Your task to perform on an android device: toggle pop-ups in chrome Image 0: 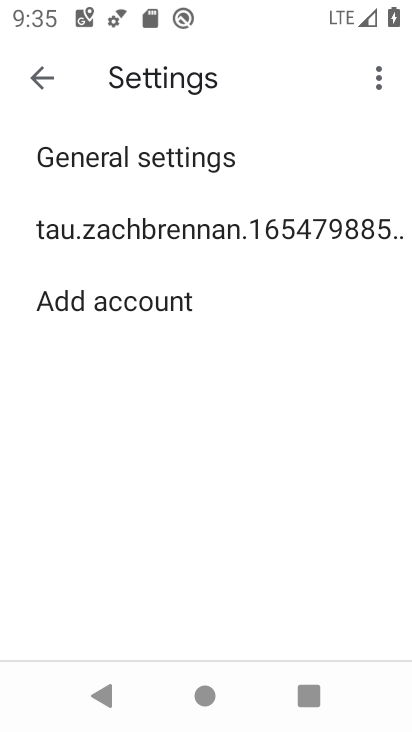
Step 0: press home button
Your task to perform on an android device: toggle pop-ups in chrome Image 1: 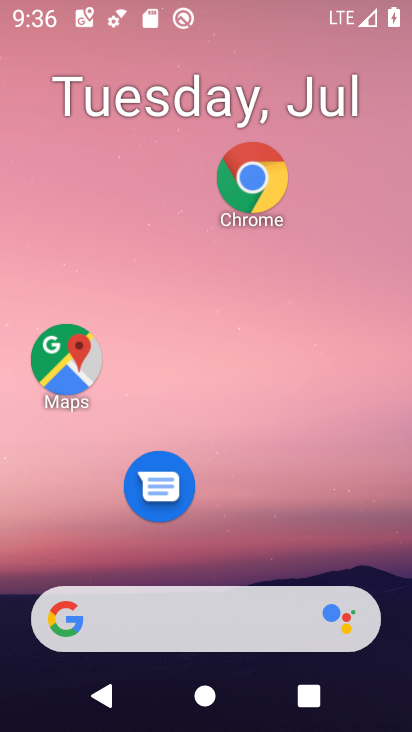
Step 1: drag from (228, 612) to (190, 59)
Your task to perform on an android device: toggle pop-ups in chrome Image 2: 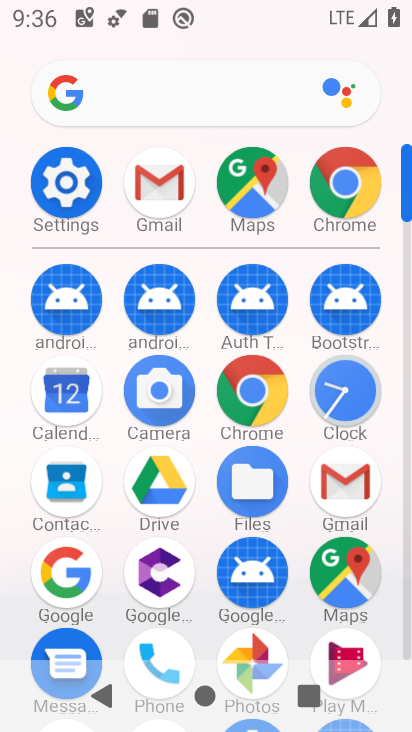
Step 2: click (355, 149)
Your task to perform on an android device: toggle pop-ups in chrome Image 3: 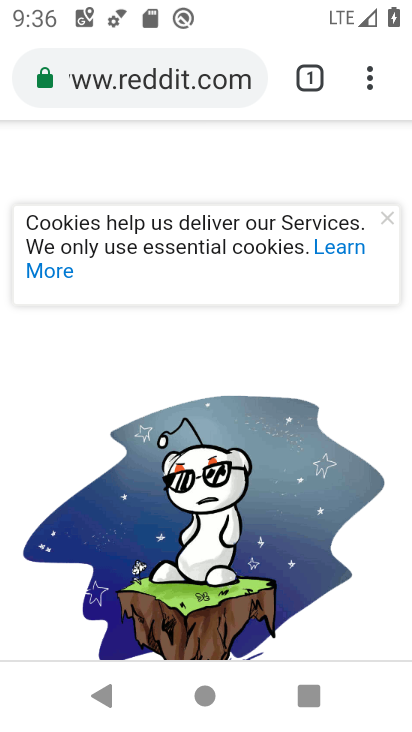
Step 3: click (363, 86)
Your task to perform on an android device: toggle pop-ups in chrome Image 4: 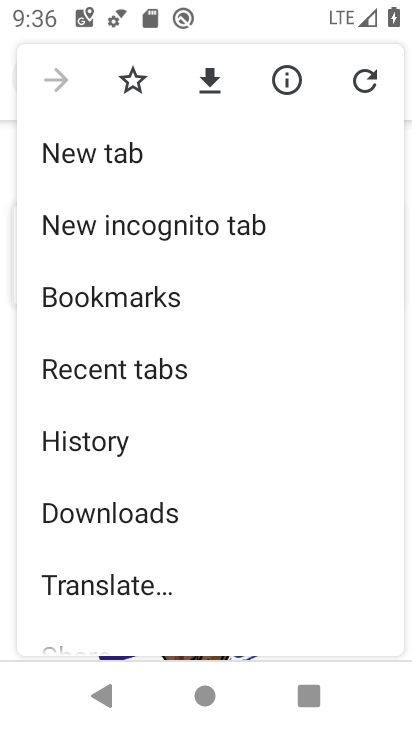
Step 4: drag from (108, 555) to (171, 117)
Your task to perform on an android device: toggle pop-ups in chrome Image 5: 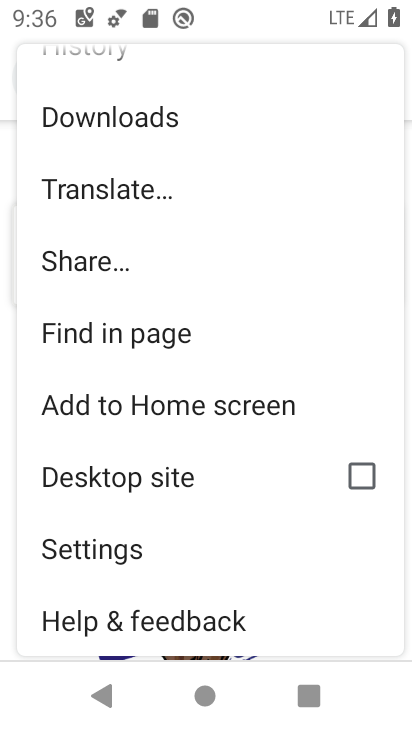
Step 5: click (75, 547)
Your task to perform on an android device: toggle pop-ups in chrome Image 6: 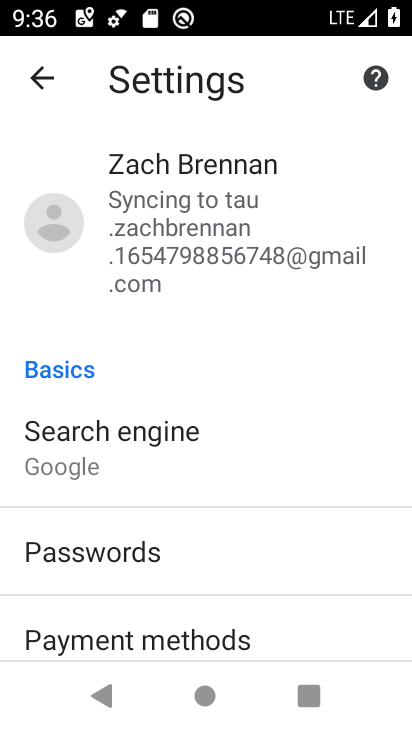
Step 6: drag from (239, 555) to (237, 27)
Your task to perform on an android device: toggle pop-ups in chrome Image 7: 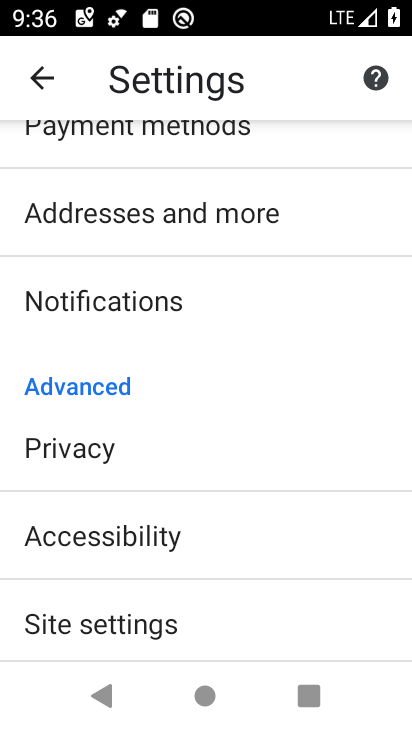
Step 7: drag from (113, 597) to (212, 179)
Your task to perform on an android device: toggle pop-ups in chrome Image 8: 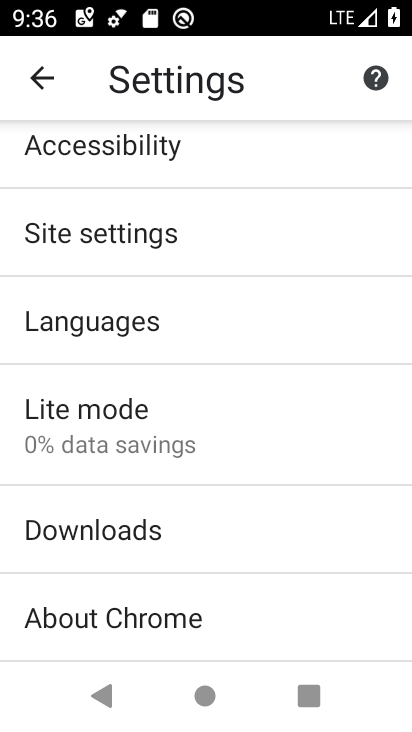
Step 8: click (123, 248)
Your task to perform on an android device: toggle pop-ups in chrome Image 9: 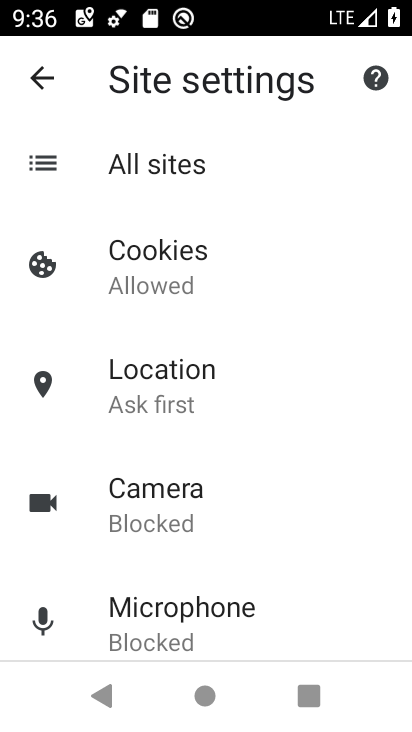
Step 9: drag from (197, 582) to (230, 342)
Your task to perform on an android device: toggle pop-ups in chrome Image 10: 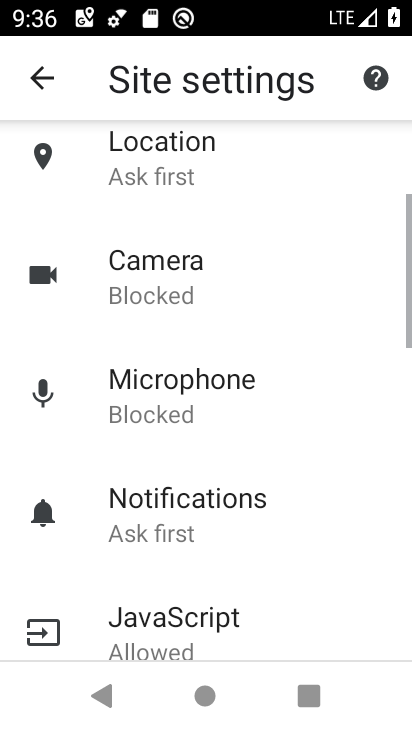
Step 10: drag from (216, 640) to (233, 402)
Your task to perform on an android device: toggle pop-ups in chrome Image 11: 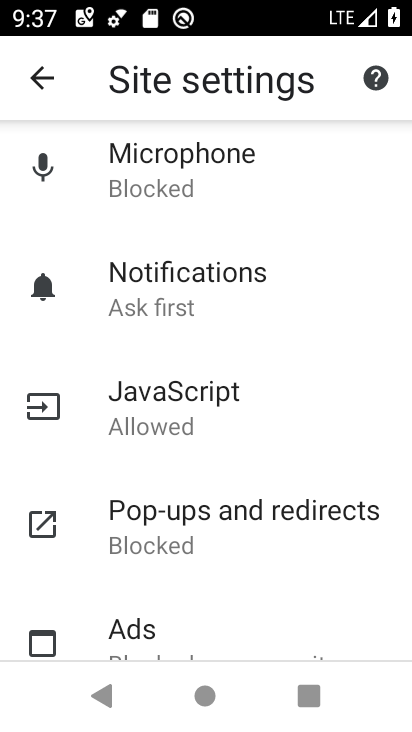
Step 11: click (227, 541)
Your task to perform on an android device: toggle pop-ups in chrome Image 12: 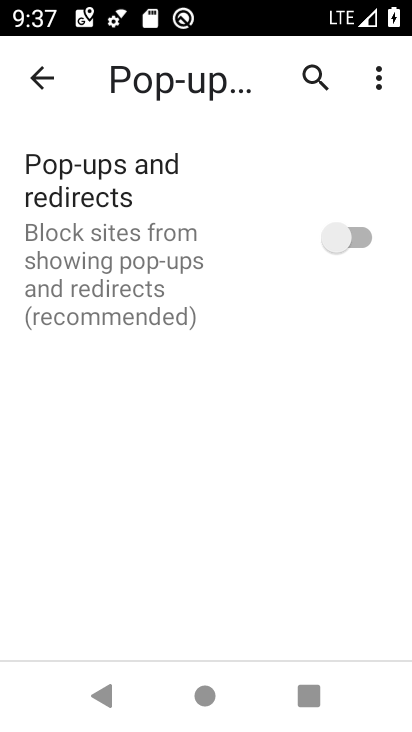
Step 12: click (359, 264)
Your task to perform on an android device: toggle pop-ups in chrome Image 13: 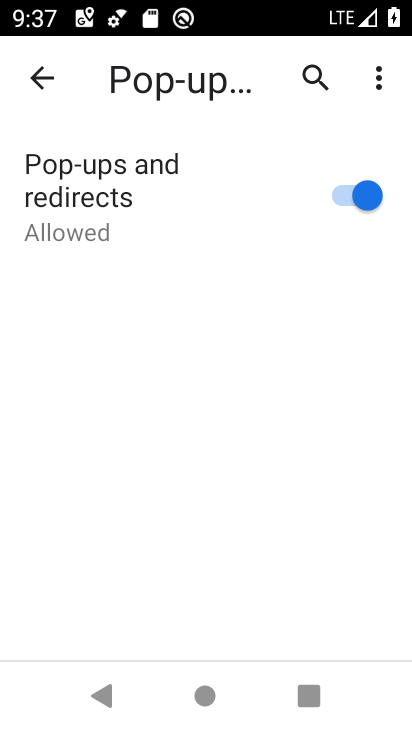
Step 13: task complete